Your task to perform on an android device: Open eBay Image 0: 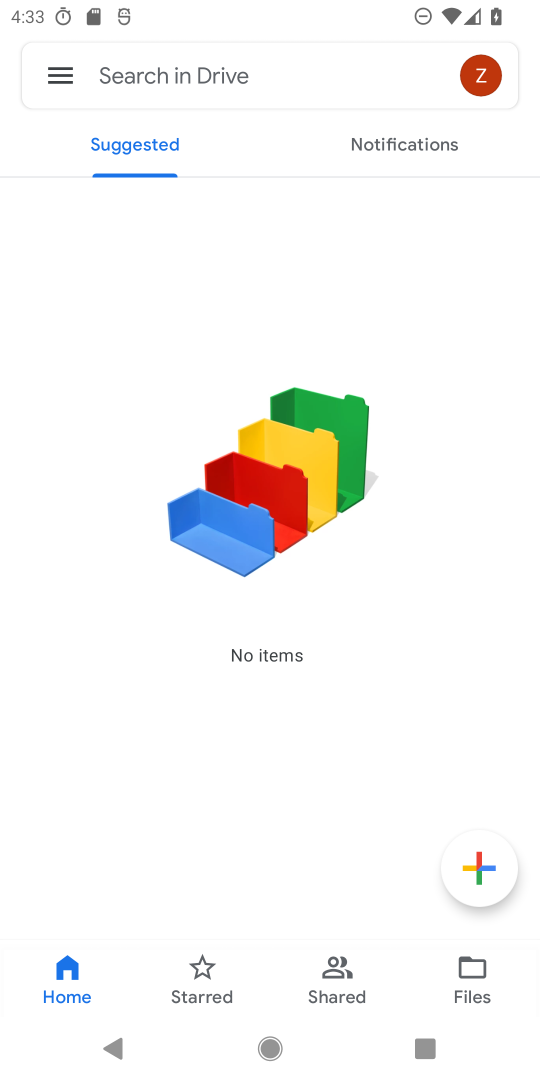
Step 0: press home button
Your task to perform on an android device: Open eBay Image 1: 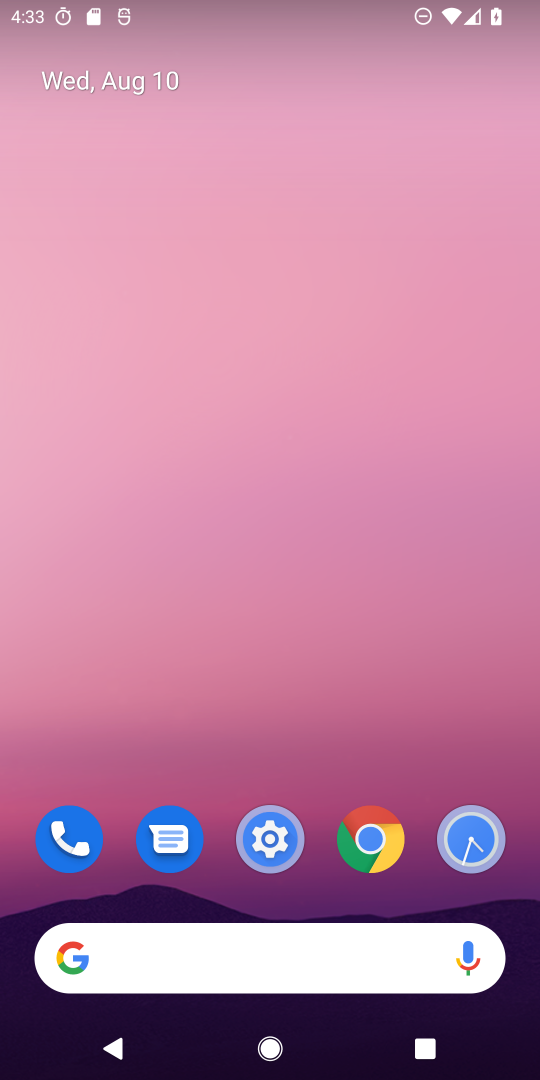
Step 1: click (148, 962)
Your task to perform on an android device: Open eBay Image 2: 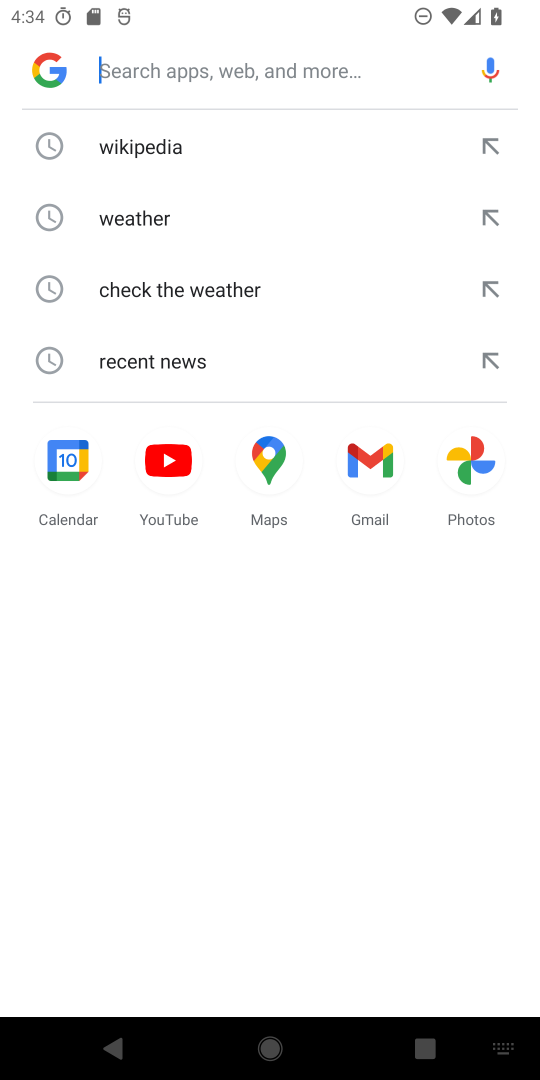
Step 2: type "eBay"
Your task to perform on an android device: Open eBay Image 3: 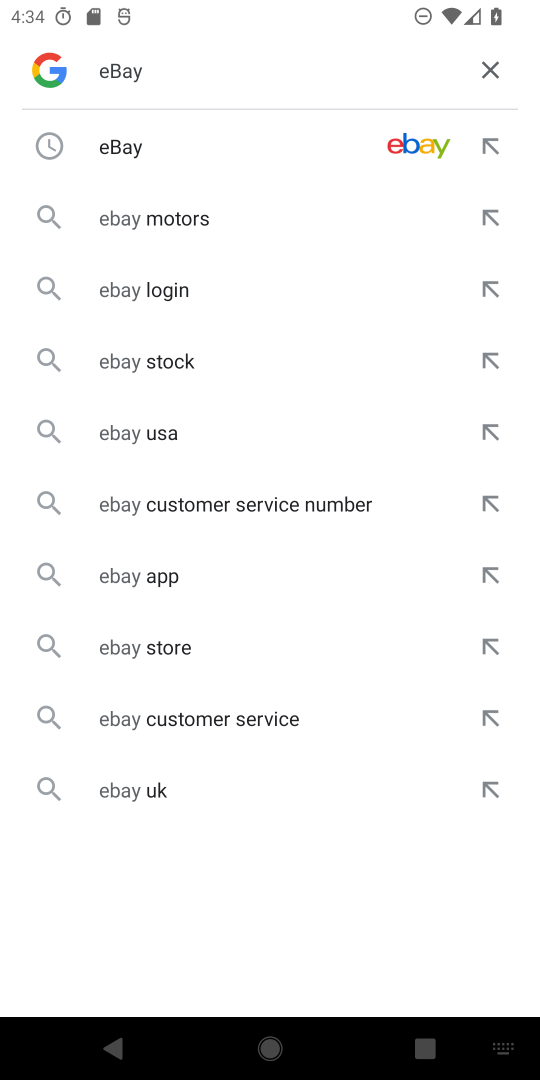
Step 3: click (132, 147)
Your task to perform on an android device: Open eBay Image 4: 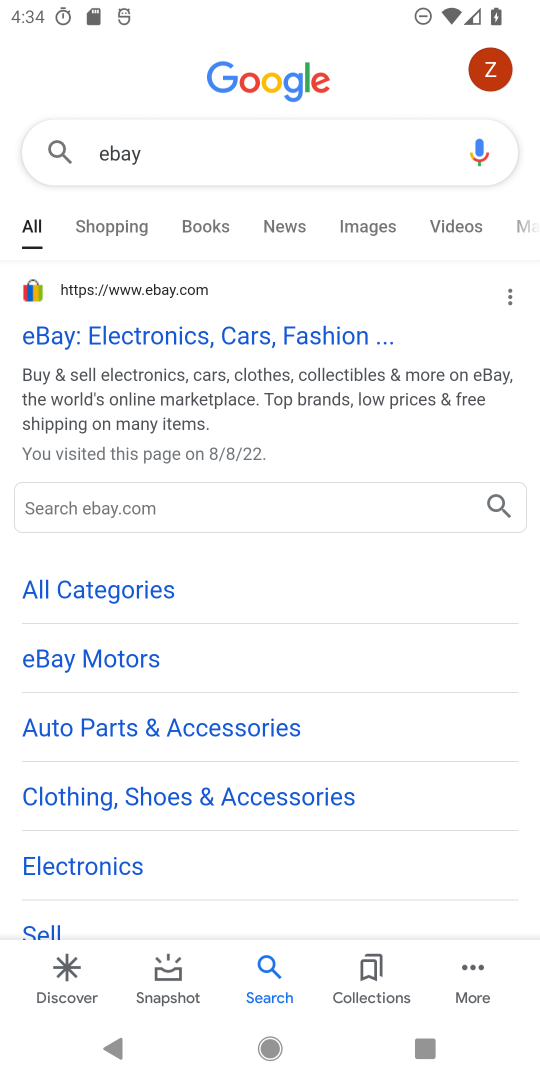
Step 4: task complete